Your task to perform on an android device: Open sound settings Image 0: 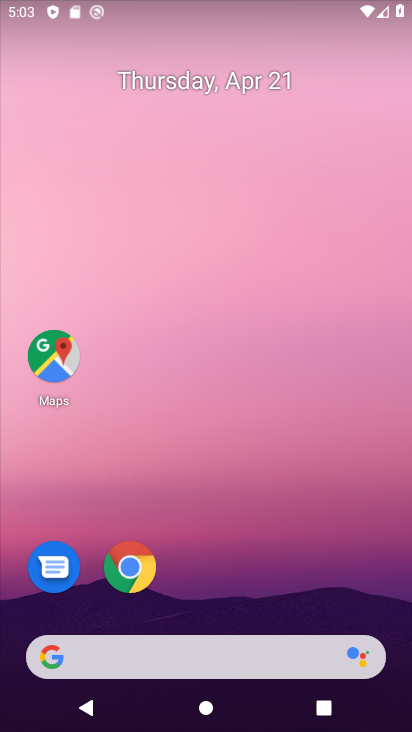
Step 0: drag from (227, 589) to (62, 23)
Your task to perform on an android device: Open sound settings Image 1: 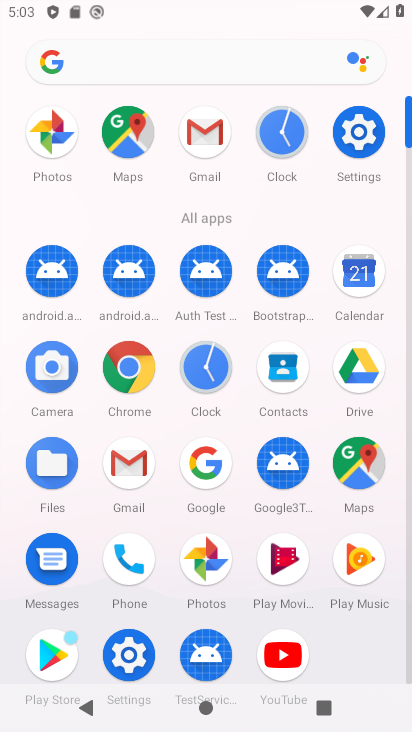
Step 1: click (365, 152)
Your task to perform on an android device: Open sound settings Image 2: 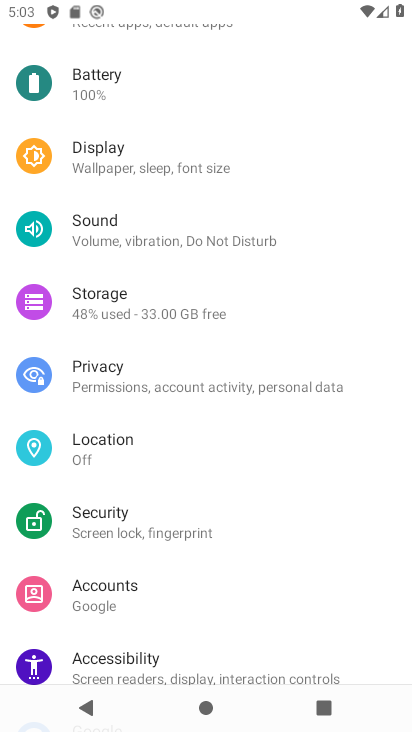
Step 2: click (136, 239)
Your task to perform on an android device: Open sound settings Image 3: 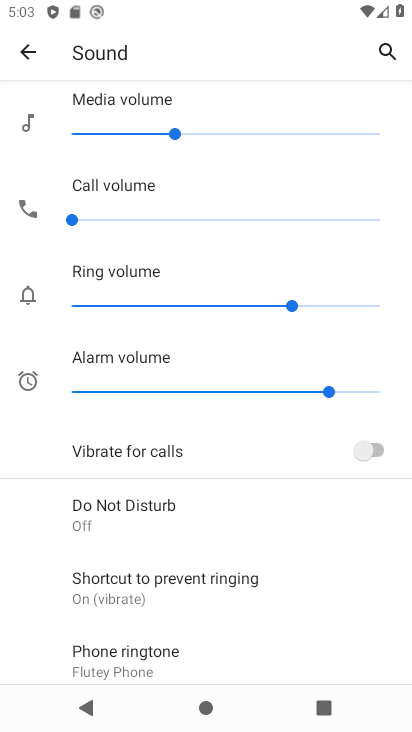
Step 3: task complete